Your task to perform on an android device: change notifications settings Image 0: 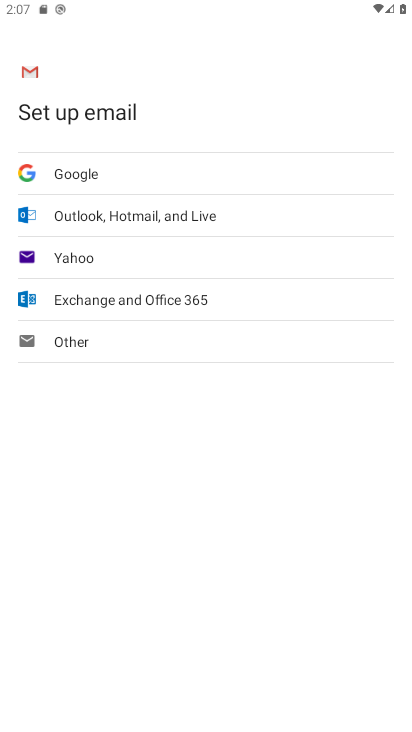
Step 0: press home button
Your task to perform on an android device: change notifications settings Image 1: 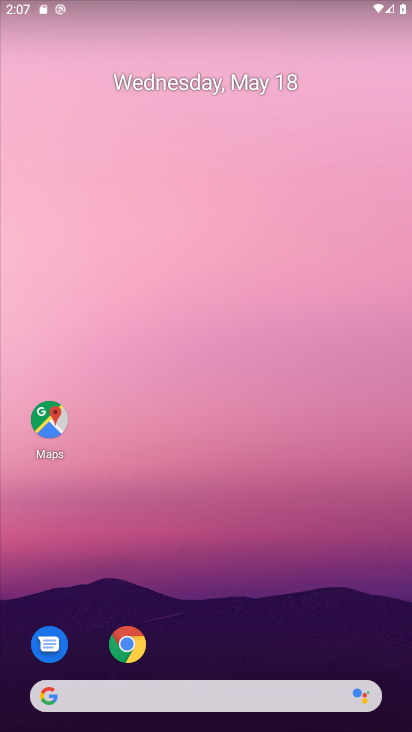
Step 1: drag from (181, 673) to (267, 192)
Your task to perform on an android device: change notifications settings Image 2: 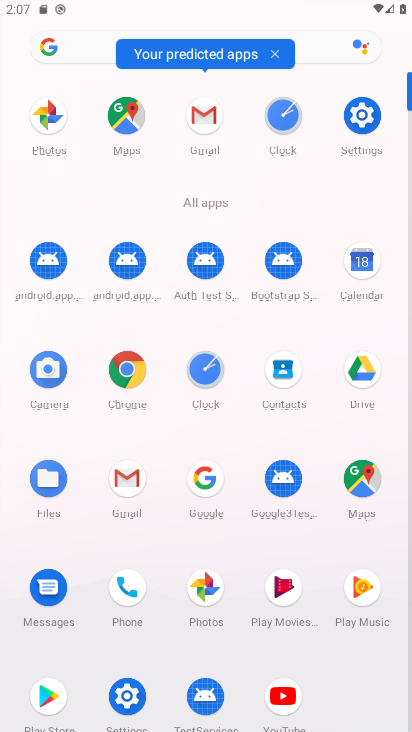
Step 2: click (141, 695)
Your task to perform on an android device: change notifications settings Image 3: 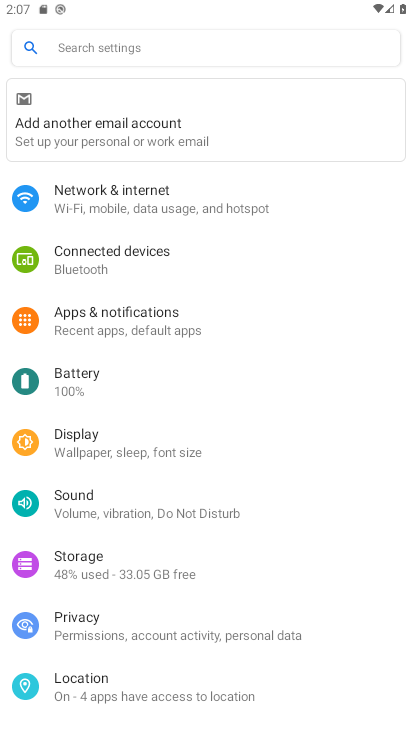
Step 3: click (161, 309)
Your task to perform on an android device: change notifications settings Image 4: 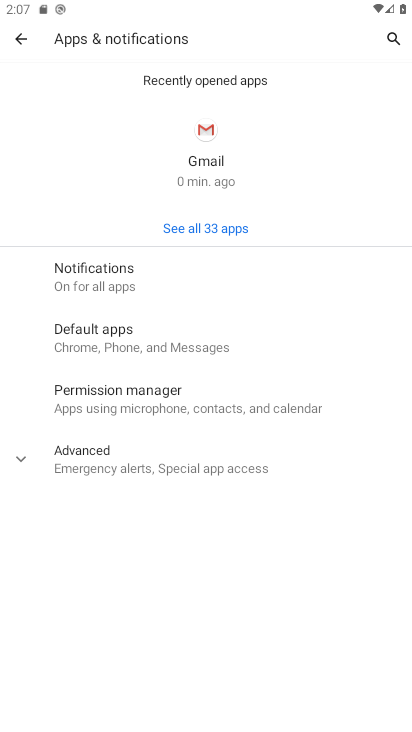
Step 4: click (152, 290)
Your task to perform on an android device: change notifications settings Image 5: 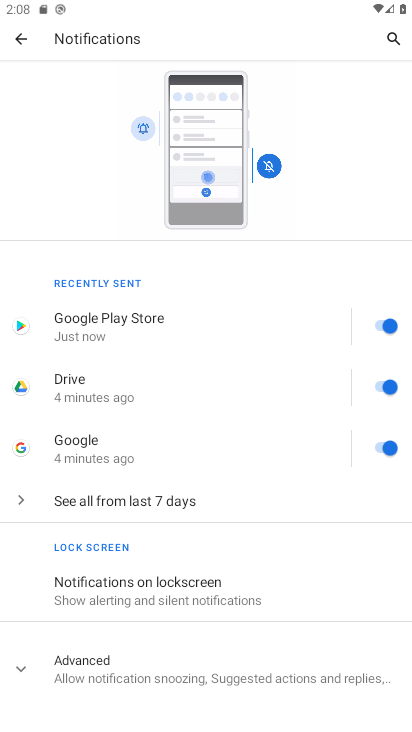
Step 5: click (392, 387)
Your task to perform on an android device: change notifications settings Image 6: 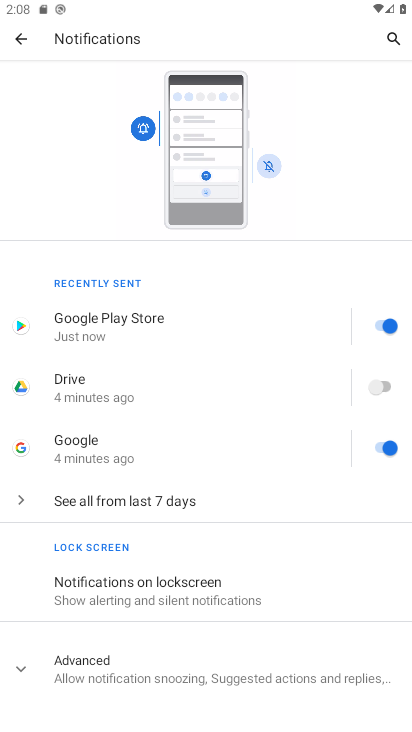
Step 6: click (381, 449)
Your task to perform on an android device: change notifications settings Image 7: 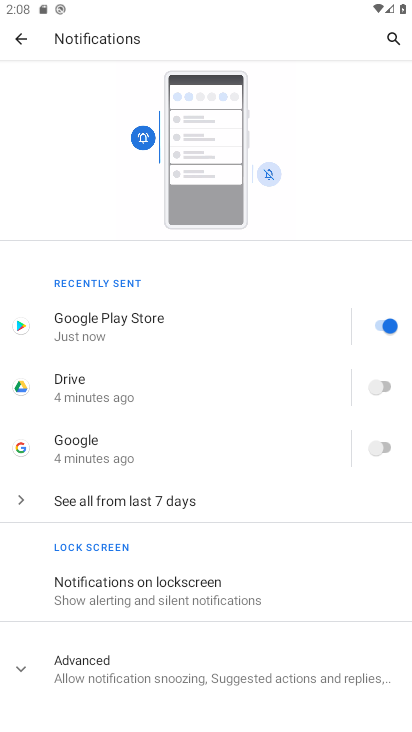
Step 7: click (322, 610)
Your task to perform on an android device: change notifications settings Image 8: 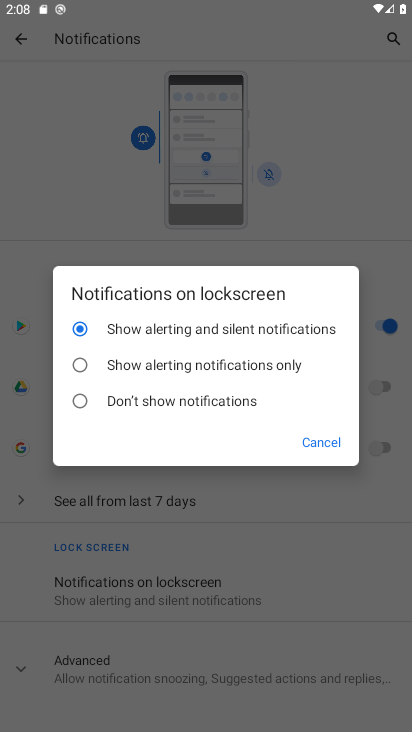
Step 8: click (285, 369)
Your task to perform on an android device: change notifications settings Image 9: 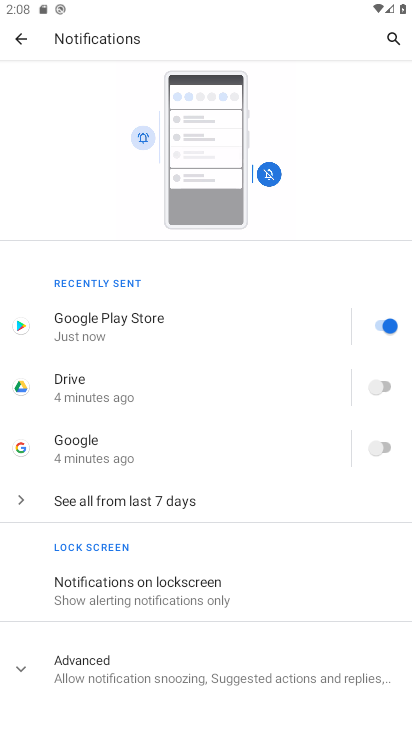
Step 9: click (218, 668)
Your task to perform on an android device: change notifications settings Image 10: 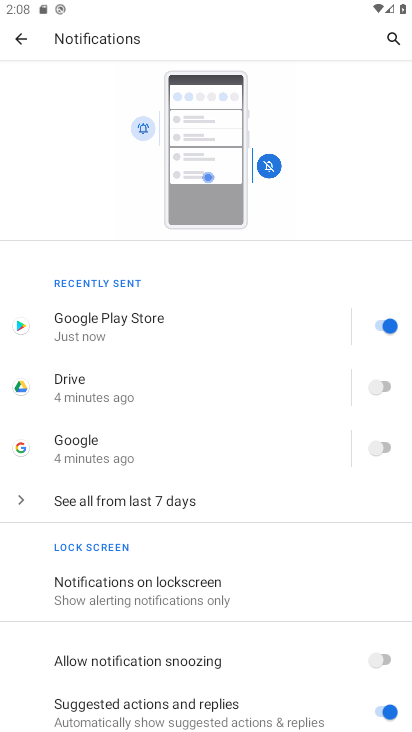
Step 10: drag from (185, 591) to (304, 332)
Your task to perform on an android device: change notifications settings Image 11: 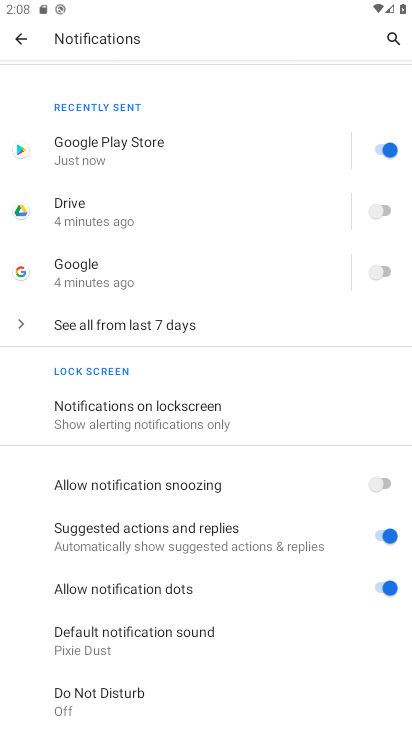
Step 11: click (391, 484)
Your task to perform on an android device: change notifications settings Image 12: 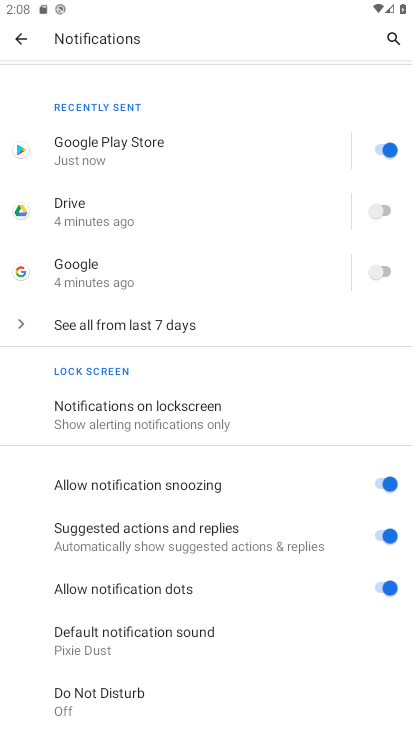
Step 12: click (379, 527)
Your task to perform on an android device: change notifications settings Image 13: 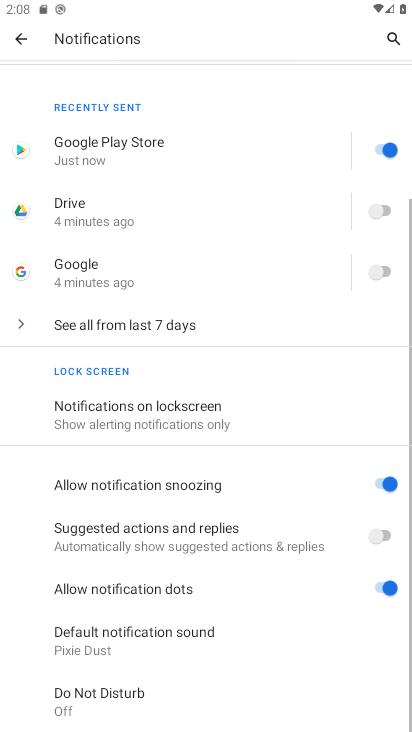
Step 13: click (384, 585)
Your task to perform on an android device: change notifications settings Image 14: 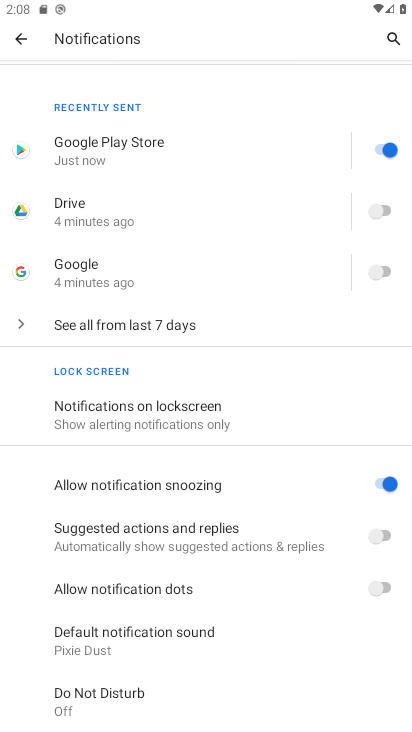
Step 14: drag from (250, 656) to (307, 515)
Your task to perform on an android device: change notifications settings Image 15: 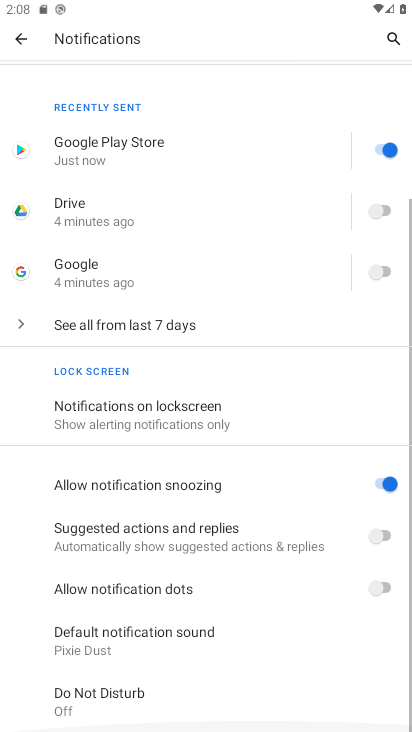
Step 15: click (229, 651)
Your task to perform on an android device: change notifications settings Image 16: 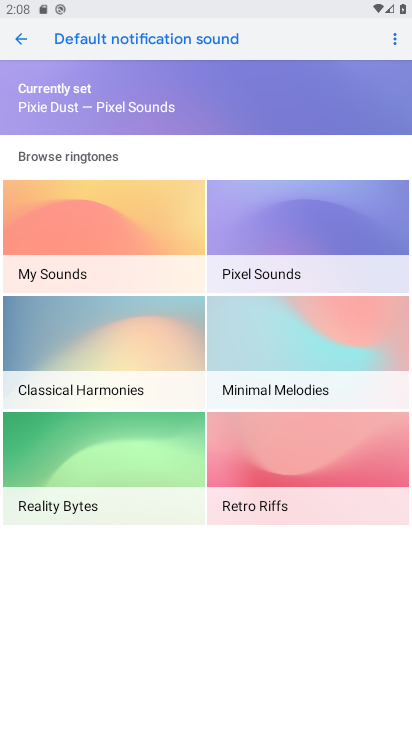
Step 16: click (119, 354)
Your task to perform on an android device: change notifications settings Image 17: 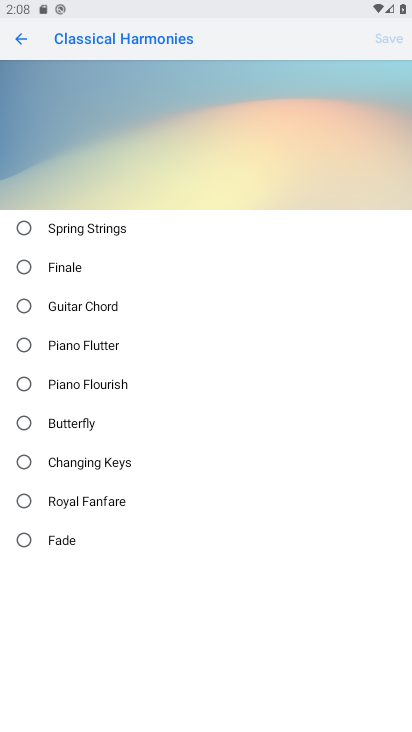
Step 17: click (180, 467)
Your task to perform on an android device: change notifications settings Image 18: 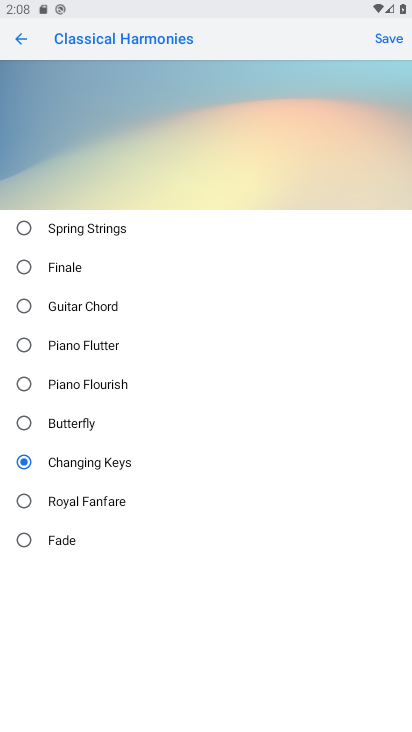
Step 18: click (384, 41)
Your task to perform on an android device: change notifications settings Image 19: 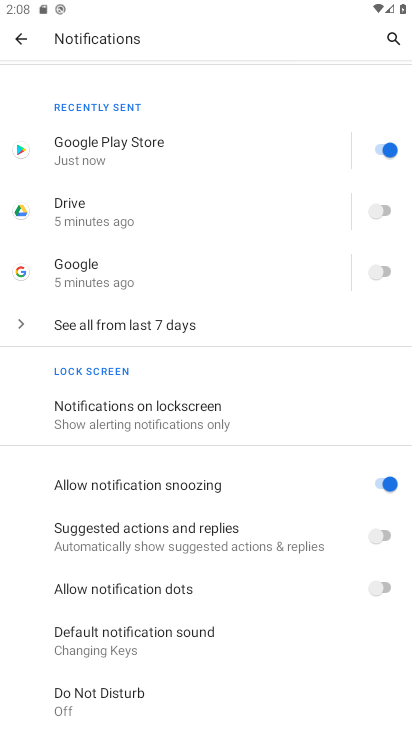
Step 19: task complete